Your task to perform on an android device: snooze an email in the gmail app Image 0: 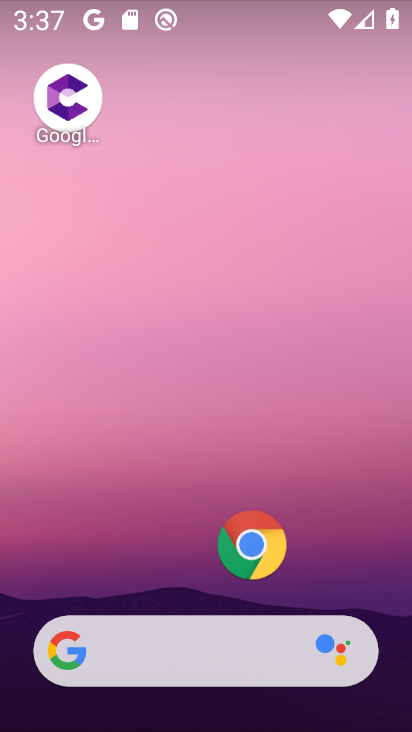
Step 0: drag from (340, 584) to (278, 145)
Your task to perform on an android device: snooze an email in the gmail app Image 1: 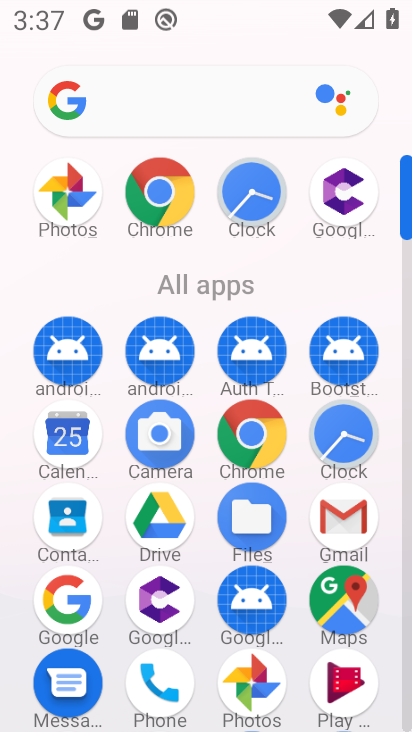
Step 1: click (351, 500)
Your task to perform on an android device: snooze an email in the gmail app Image 2: 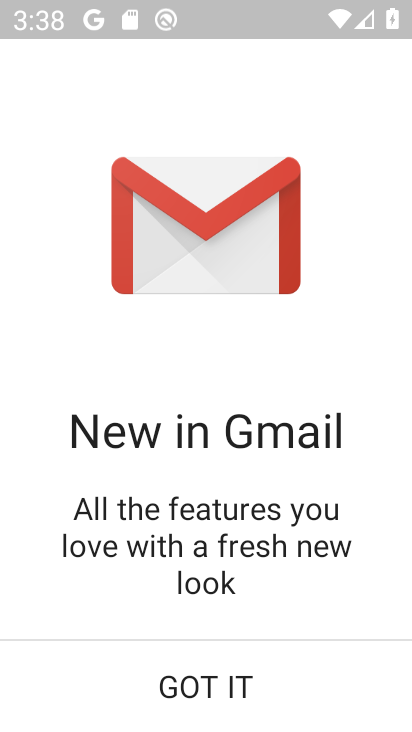
Step 2: click (218, 676)
Your task to perform on an android device: snooze an email in the gmail app Image 3: 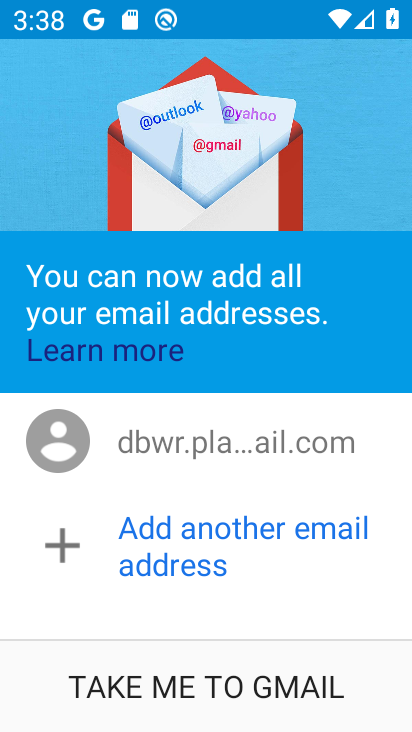
Step 3: click (212, 680)
Your task to perform on an android device: snooze an email in the gmail app Image 4: 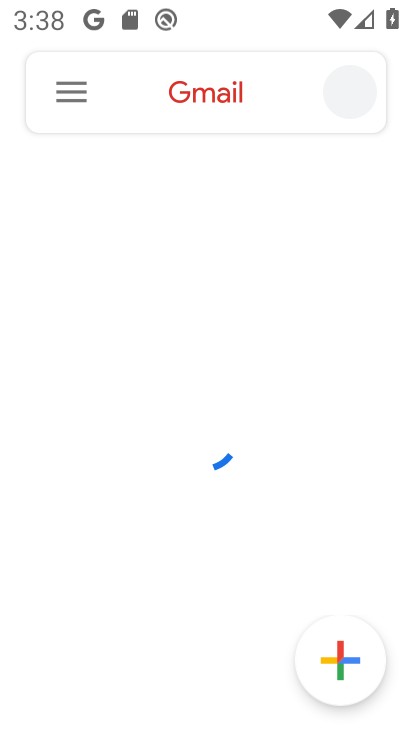
Step 4: click (82, 99)
Your task to perform on an android device: snooze an email in the gmail app Image 5: 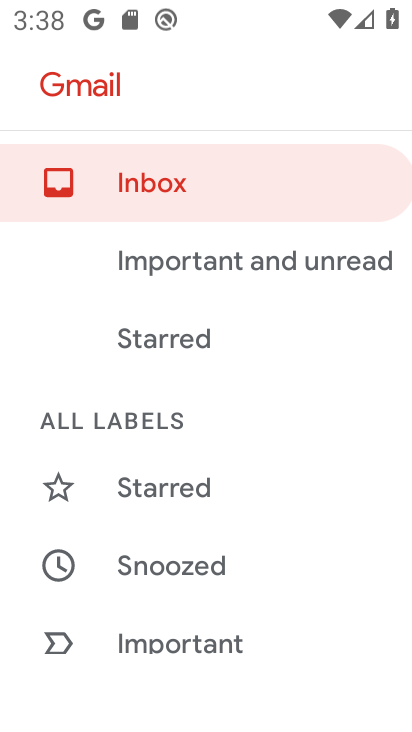
Step 5: drag from (245, 594) to (251, 136)
Your task to perform on an android device: snooze an email in the gmail app Image 6: 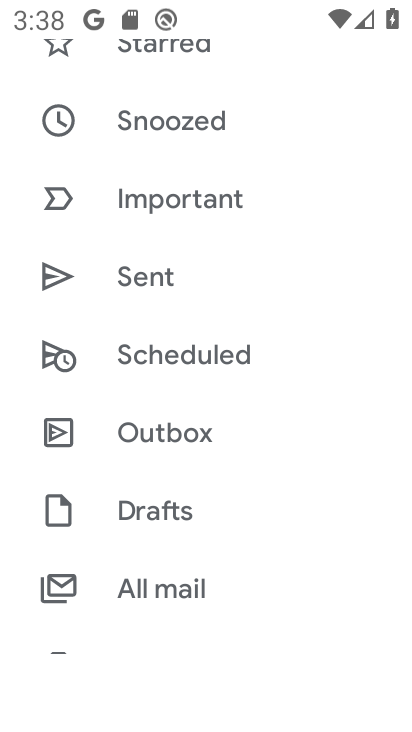
Step 6: click (152, 579)
Your task to perform on an android device: snooze an email in the gmail app Image 7: 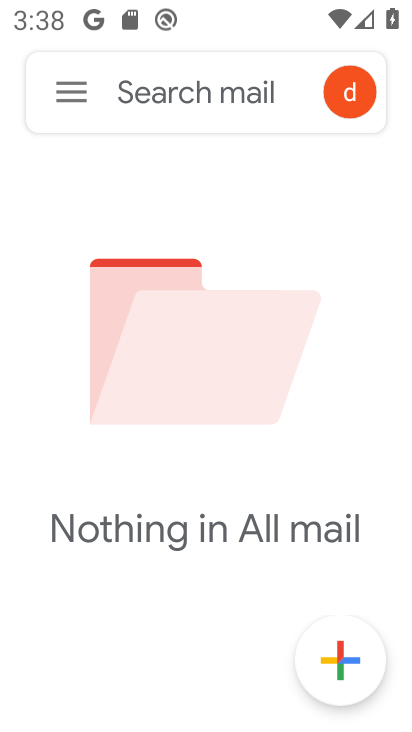
Step 7: task complete